Your task to perform on an android device: check out phone information Image 0: 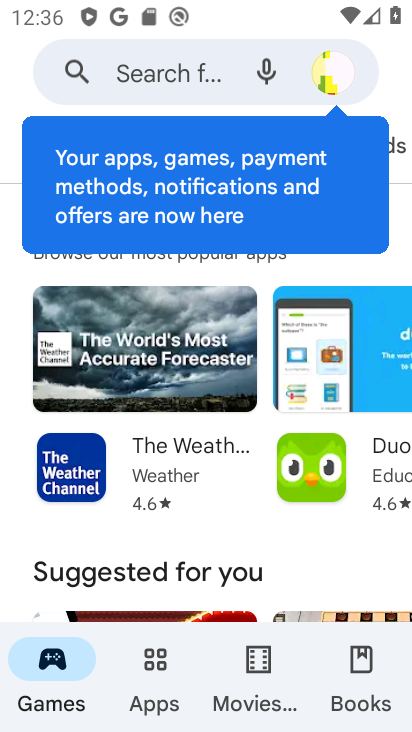
Step 0: press back button
Your task to perform on an android device: check out phone information Image 1: 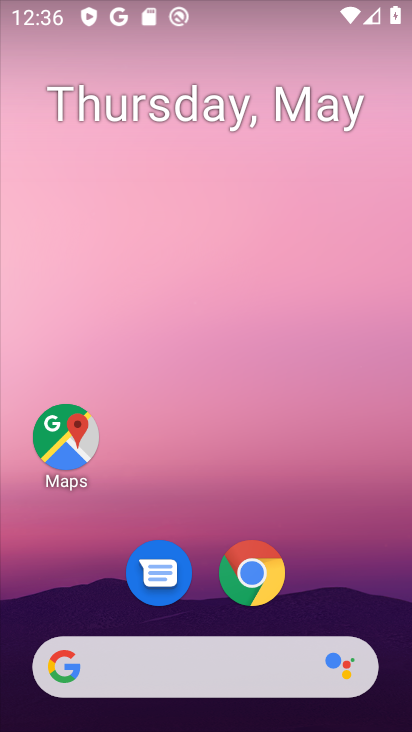
Step 1: drag from (323, 524) to (247, 92)
Your task to perform on an android device: check out phone information Image 2: 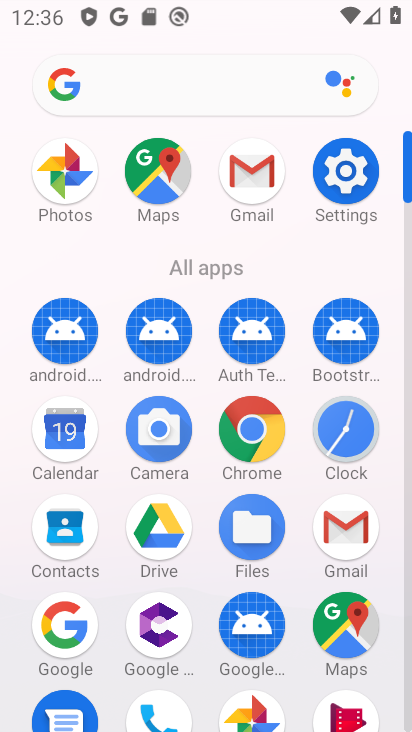
Step 2: click (345, 170)
Your task to perform on an android device: check out phone information Image 3: 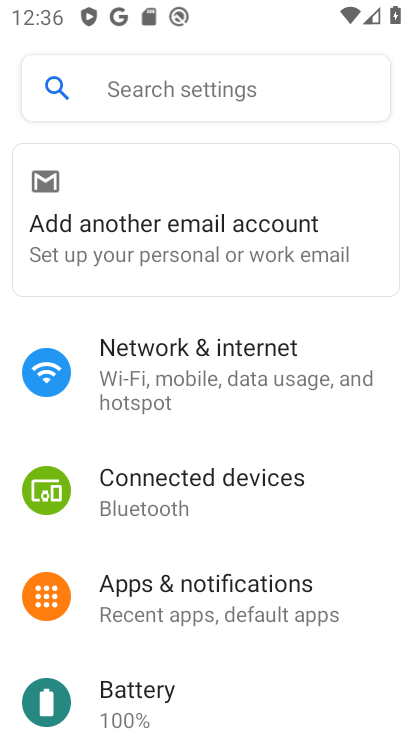
Step 3: drag from (323, 612) to (361, 139)
Your task to perform on an android device: check out phone information Image 4: 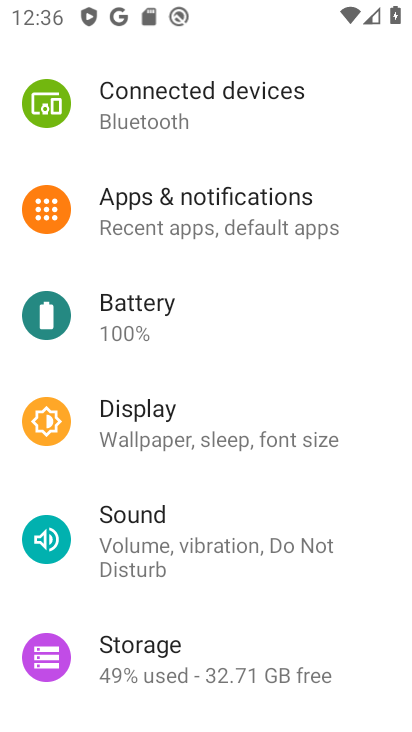
Step 4: drag from (276, 616) to (287, 182)
Your task to perform on an android device: check out phone information Image 5: 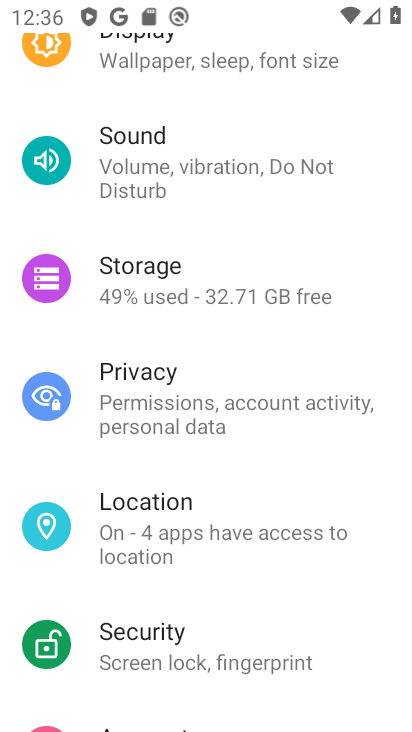
Step 5: drag from (206, 586) to (225, 163)
Your task to perform on an android device: check out phone information Image 6: 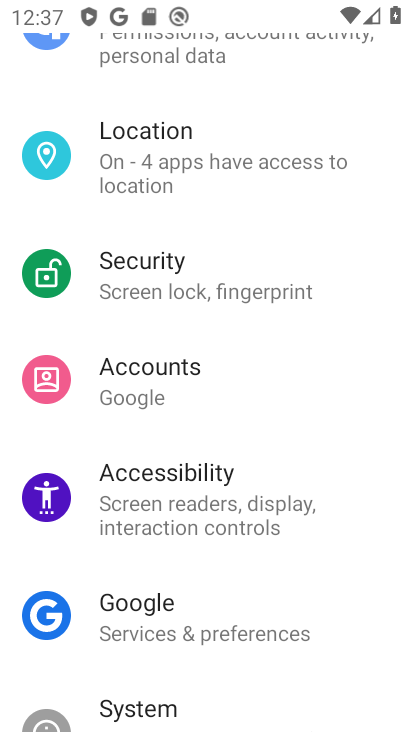
Step 6: drag from (163, 676) to (237, 284)
Your task to perform on an android device: check out phone information Image 7: 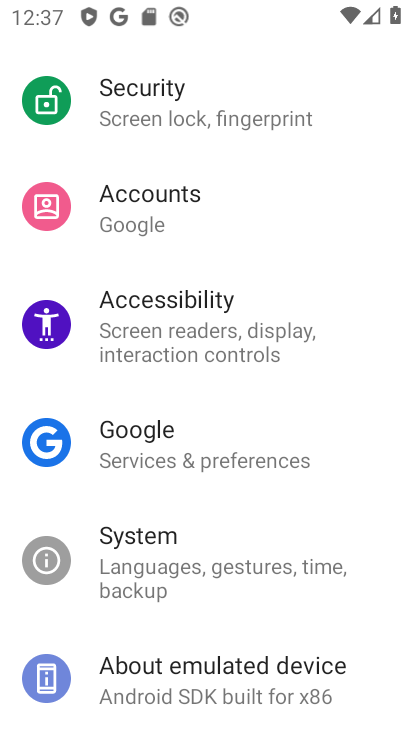
Step 7: click (219, 688)
Your task to perform on an android device: check out phone information Image 8: 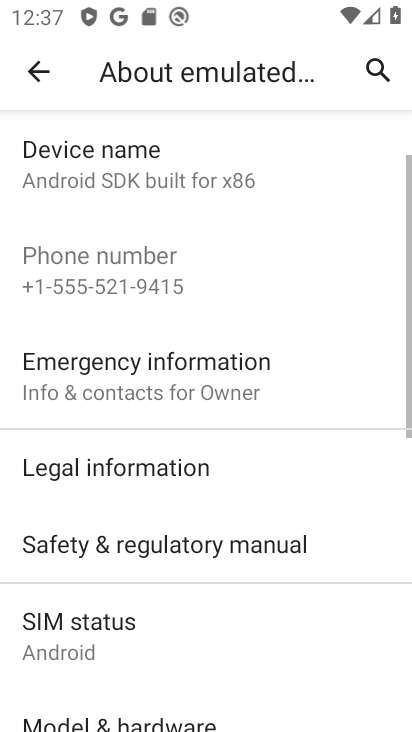
Step 8: task complete